Your task to perform on an android device: turn on improve location accuracy Image 0: 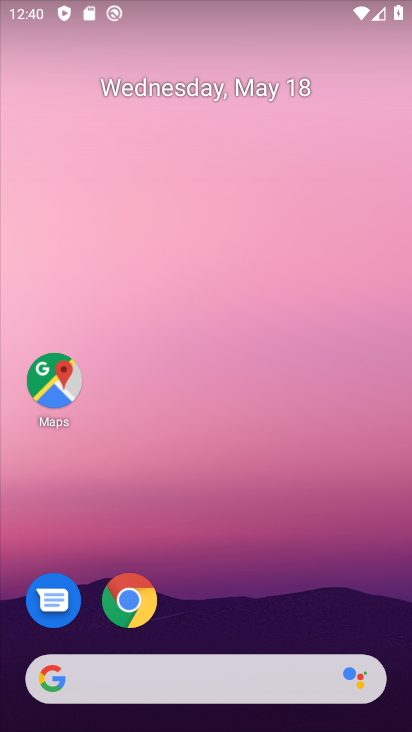
Step 0: drag from (209, 627) to (219, 256)
Your task to perform on an android device: turn on improve location accuracy Image 1: 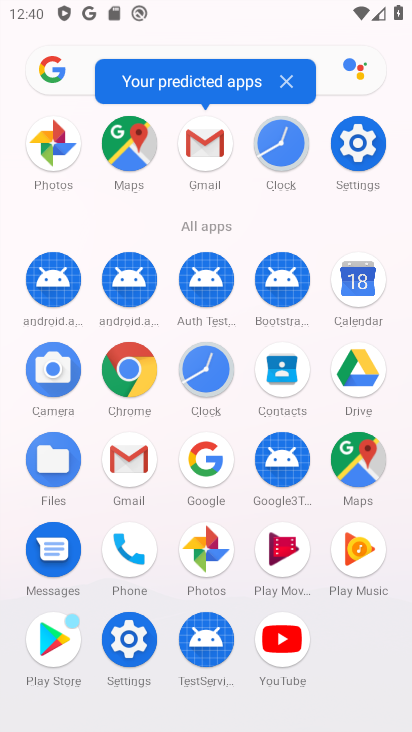
Step 1: click (133, 633)
Your task to perform on an android device: turn on improve location accuracy Image 2: 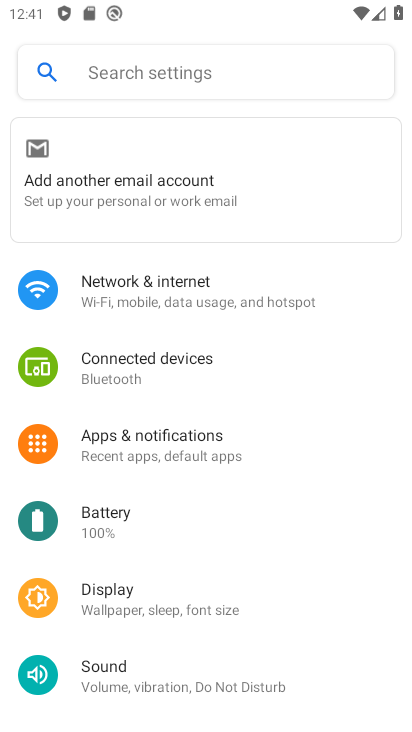
Step 2: drag from (214, 535) to (251, 265)
Your task to perform on an android device: turn on improve location accuracy Image 3: 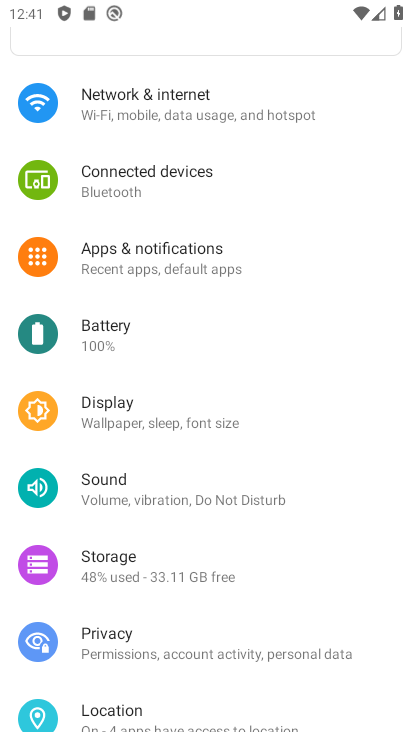
Step 3: drag from (137, 499) to (152, 200)
Your task to perform on an android device: turn on improve location accuracy Image 4: 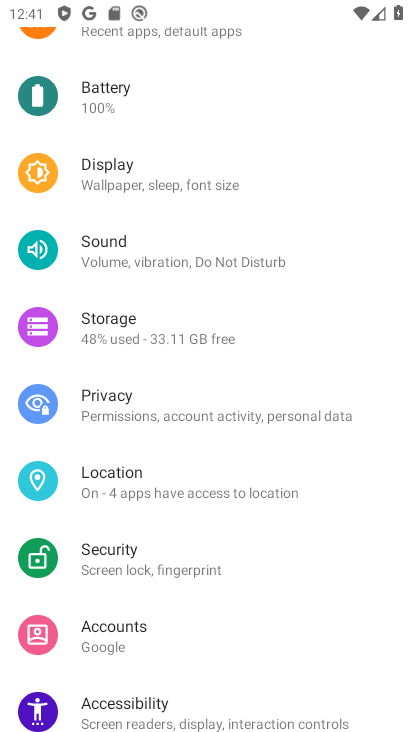
Step 4: click (140, 481)
Your task to perform on an android device: turn on improve location accuracy Image 5: 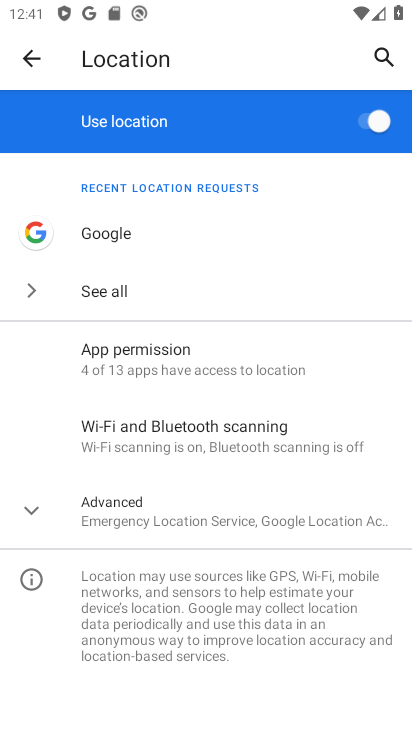
Step 5: click (130, 506)
Your task to perform on an android device: turn on improve location accuracy Image 6: 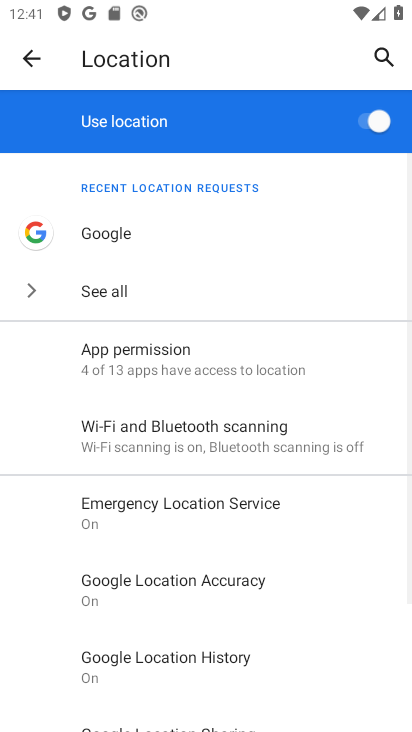
Step 6: drag from (164, 603) to (216, 332)
Your task to perform on an android device: turn on improve location accuracy Image 7: 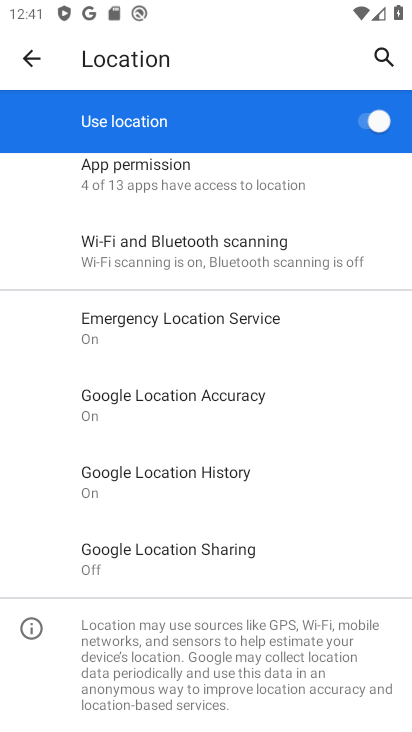
Step 7: click (204, 385)
Your task to perform on an android device: turn on improve location accuracy Image 8: 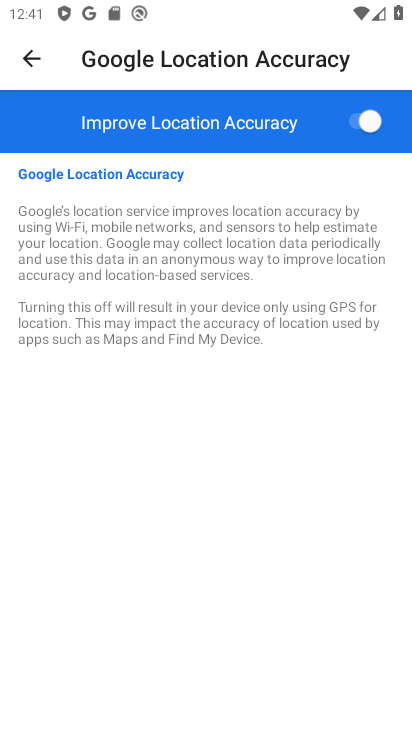
Step 8: task complete